Your task to perform on an android device: Set the phone to "Do not disturb". Image 0: 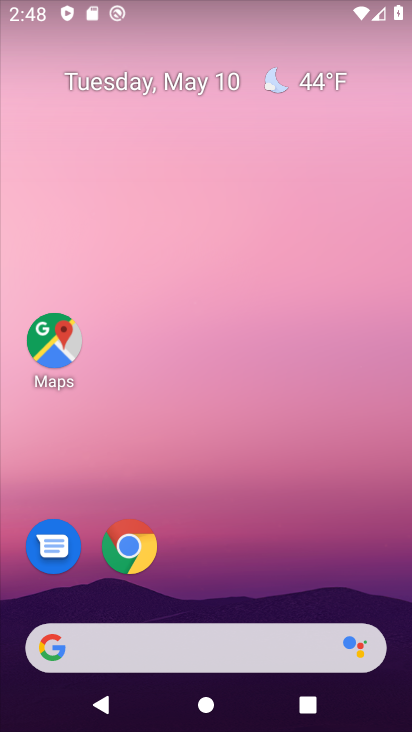
Step 0: drag from (236, 641) to (298, 84)
Your task to perform on an android device: Set the phone to "Do not disturb". Image 1: 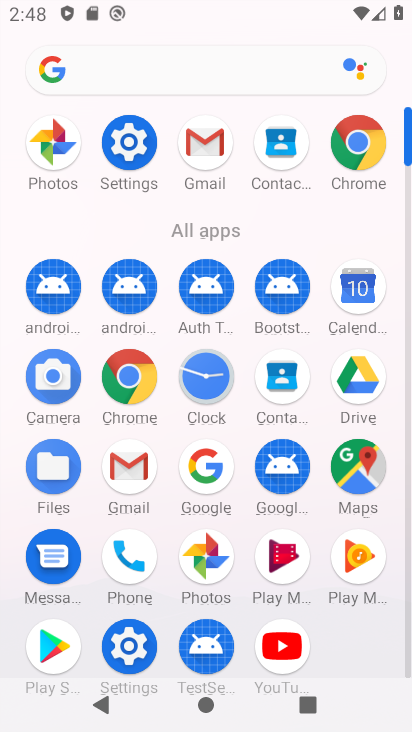
Step 1: click (120, 147)
Your task to perform on an android device: Set the phone to "Do not disturb". Image 2: 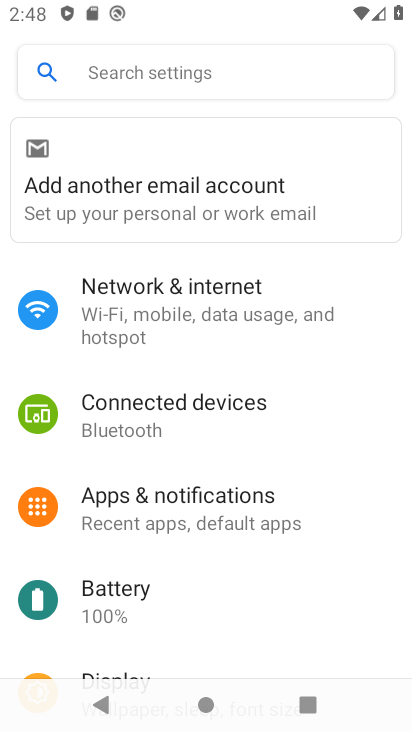
Step 2: drag from (133, 668) to (169, 189)
Your task to perform on an android device: Set the phone to "Do not disturb". Image 3: 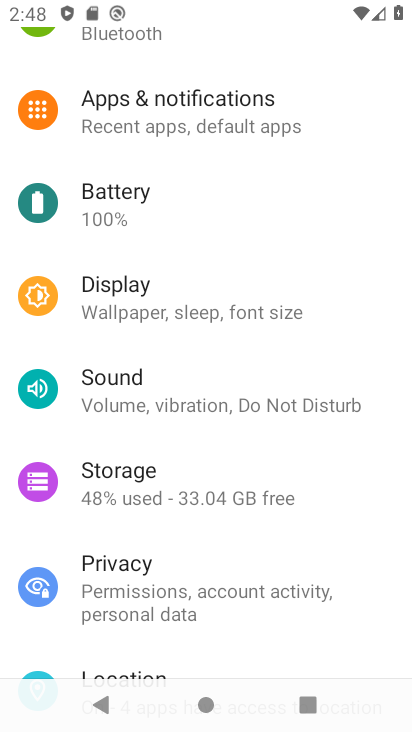
Step 3: click (161, 398)
Your task to perform on an android device: Set the phone to "Do not disturb". Image 4: 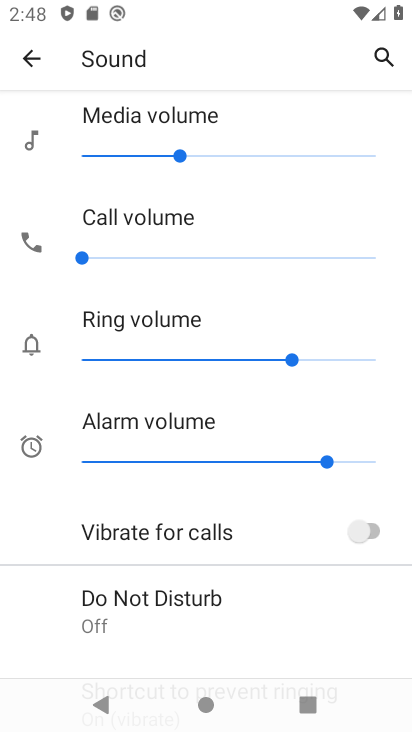
Step 4: drag from (236, 616) to (245, 119)
Your task to perform on an android device: Set the phone to "Do not disturb". Image 5: 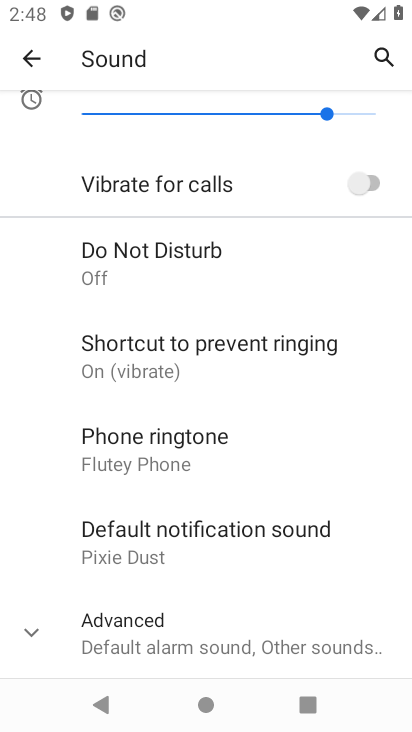
Step 5: click (164, 244)
Your task to perform on an android device: Set the phone to "Do not disturb". Image 6: 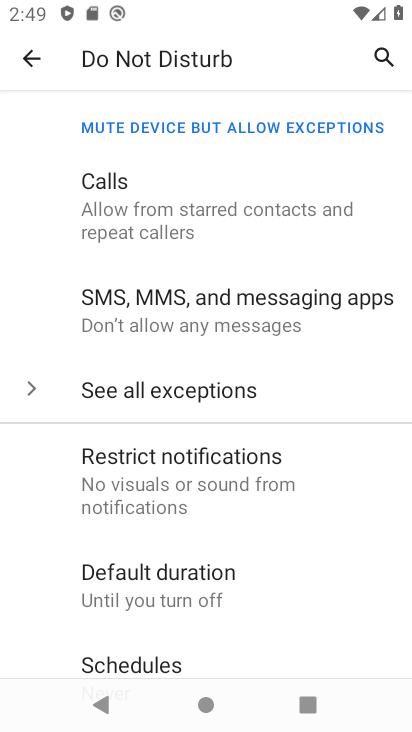
Step 6: drag from (271, 614) to (313, 35)
Your task to perform on an android device: Set the phone to "Do not disturb". Image 7: 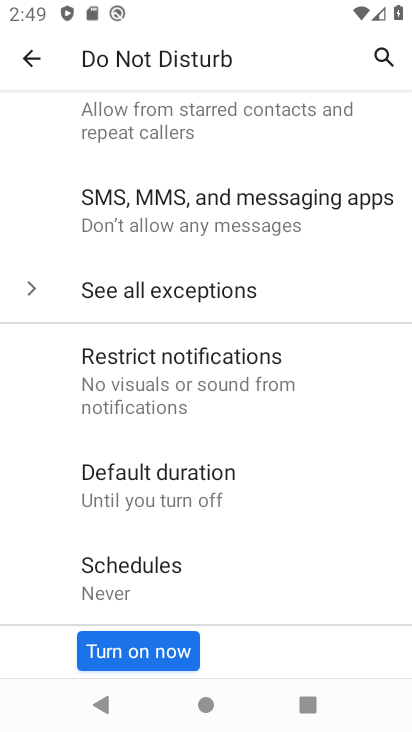
Step 7: click (139, 652)
Your task to perform on an android device: Set the phone to "Do not disturb". Image 8: 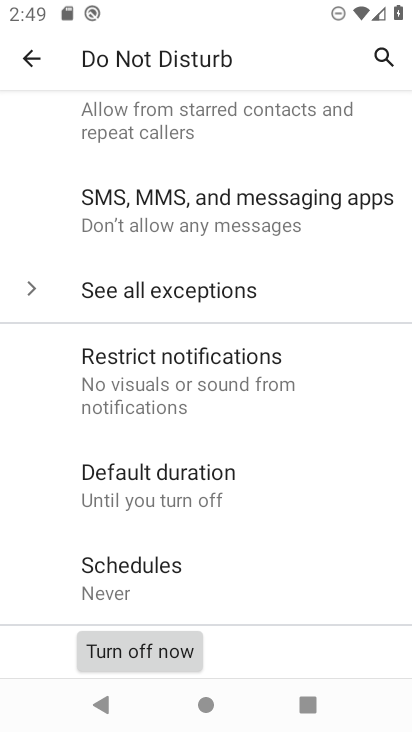
Step 8: task complete